Your task to perform on an android device: open app "Instagram" Image 0: 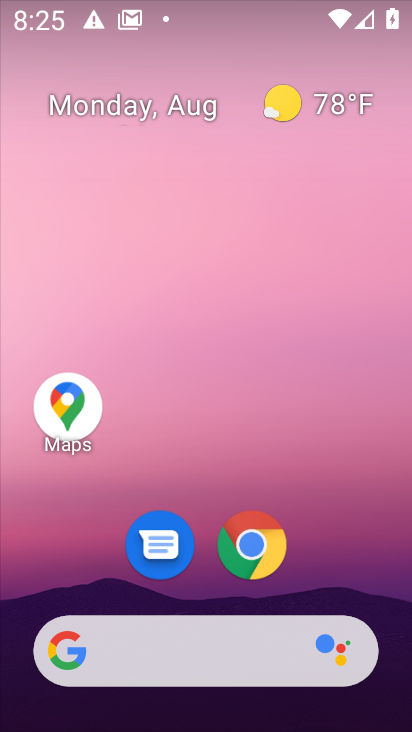
Step 0: press home button
Your task to perform on an android device: open app "Instagram" Image 1: 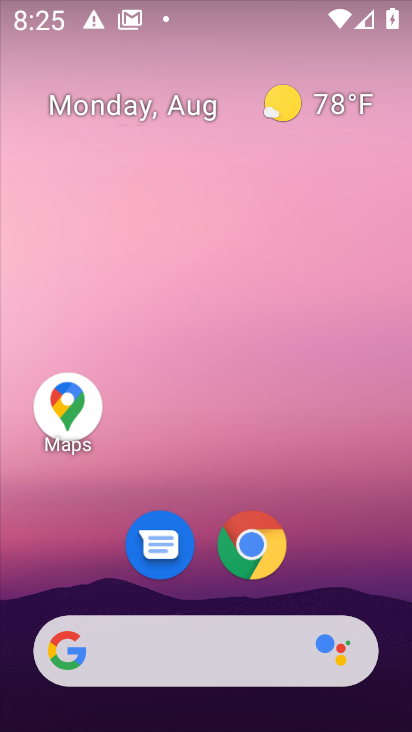
Step 1: drag from (361, 550) to (387, 77)
Your task to perform on an android device: open app "Instagram" Image 2: 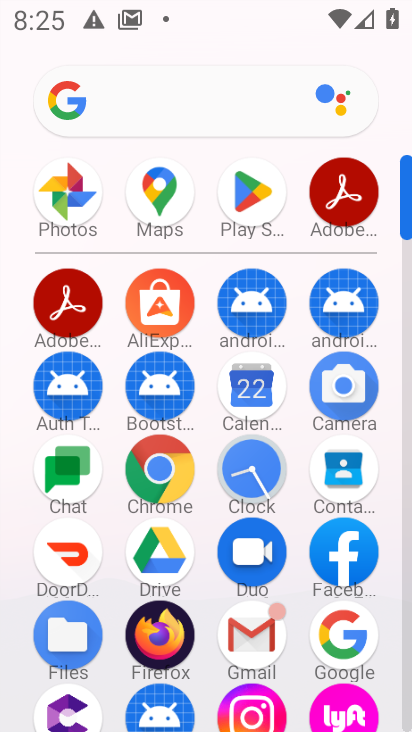
Step 2: click (228, 195)
Your task to perform on an android device: open app "Instagram" Image 3: 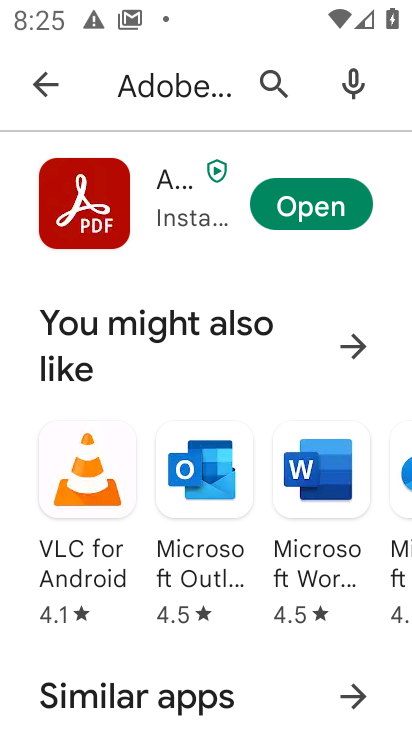
Step 3: press back button
Your task to perform on an android device: open app "Instagram" Image 4: 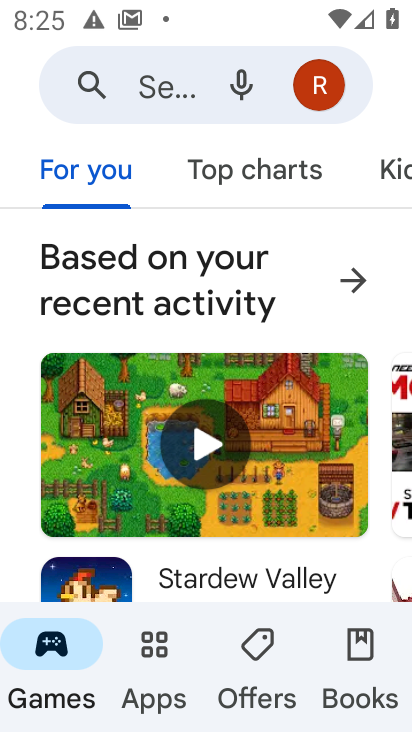
Step 4: click (167, 84)
Your task to perform on an android device: open app "Instagram" Image 5: 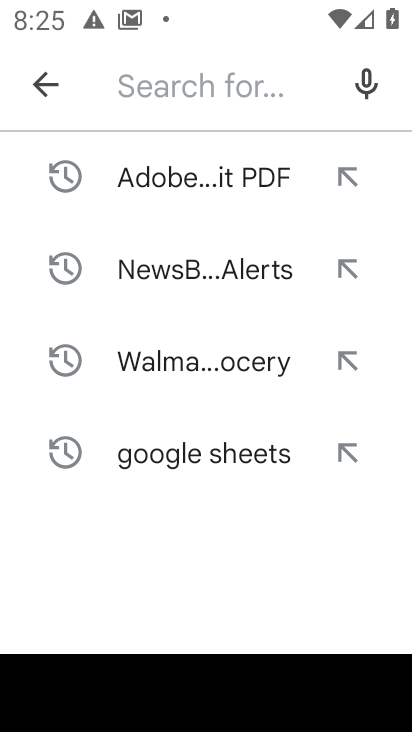
Step 5: type "instagram"
Your task to perform on an android device: open app "Instagram" Image 6: 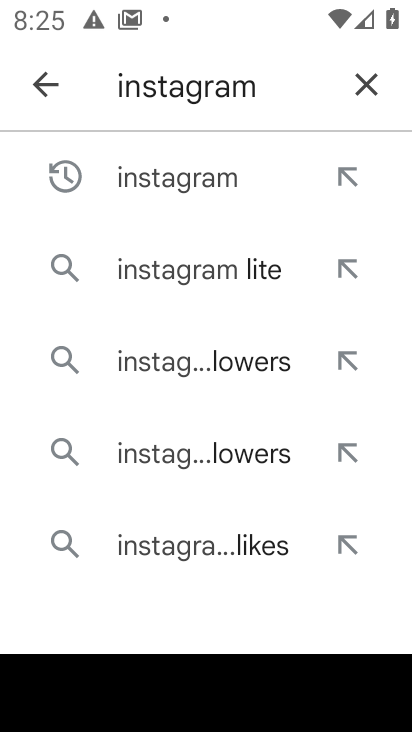
Step 6: click (201, 185)
Your task to perform on an android device: open app "Instagram" Image 7: 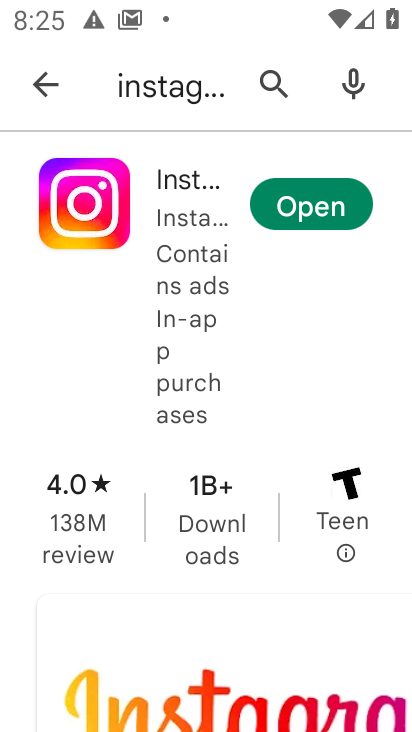
Step 7: click (331, 215)
Your task to perform on an android device: open app "Instagram" Image 8: 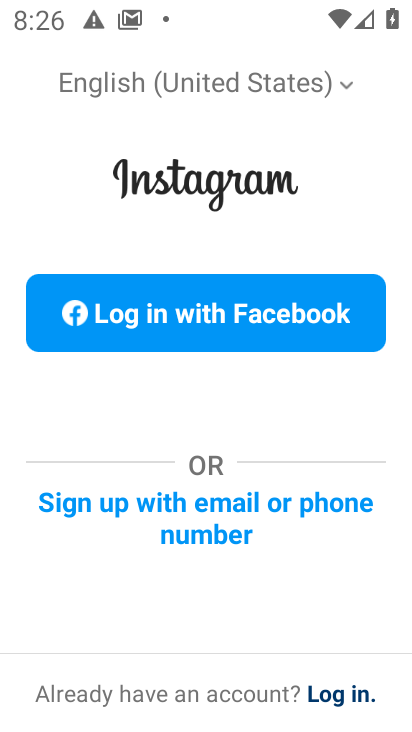
Step 8: task complete